Your task to perform on an android device: Find coffee shops on Maps Image 0: 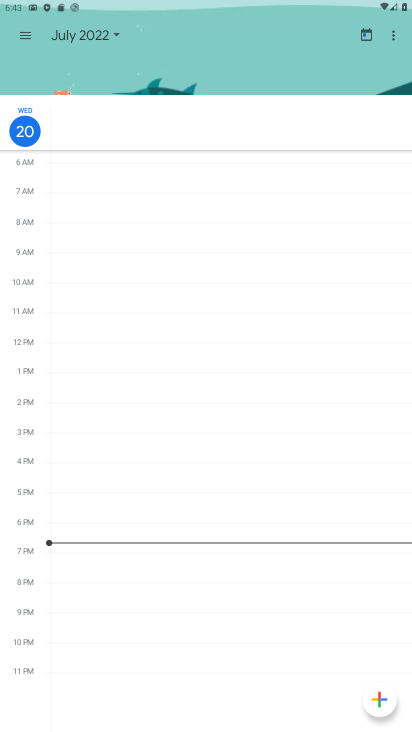
Step 0: press home button
Your task to perform on an android device: Find coffee shops on Maps Image 1: 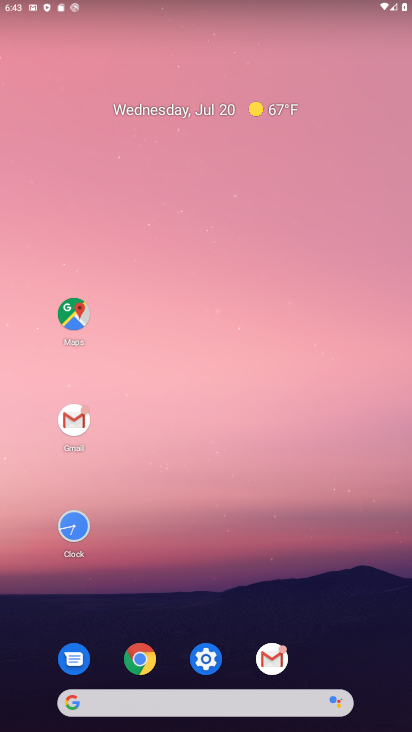
Step 1: click (72, 313)
Your task to perform on an android device: Find coffee shops on Maps Image 2: 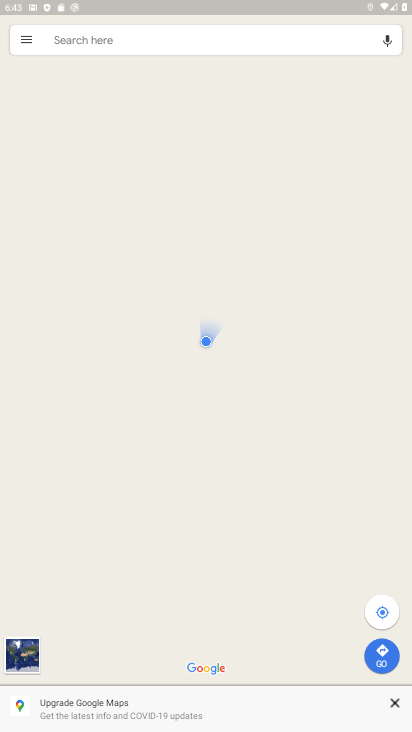
Step 2: click (153, 42)
Your task to perform on an android device: Find coffee shops on Maps Image 3: 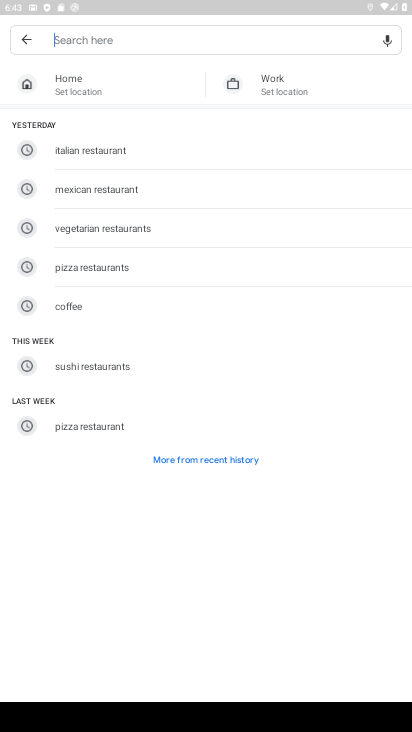
Step 3: click (65, 301)
Your task to perform on an android device: Find coffee shops on Maps Image 4: 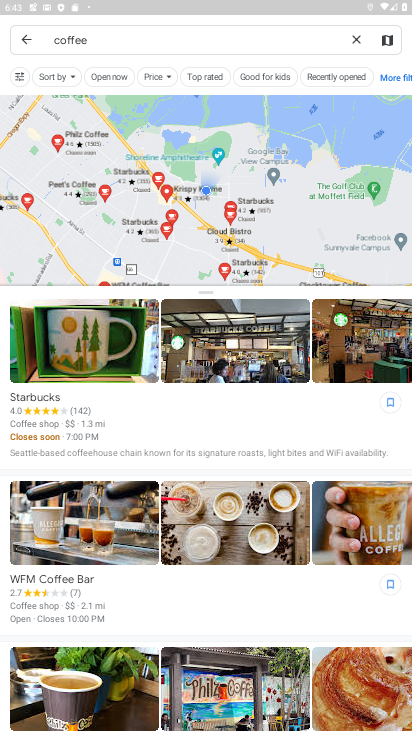
Step 4: task complete